Your task to perform on an android device: turn off airplane mode Image 0: 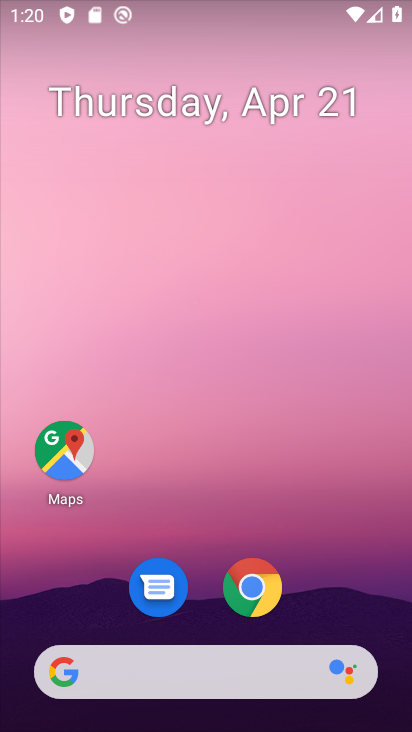
Step 0: drag from (374, 609) to (259, 87)
Your task to perform on an android device: turn off airplane mode Image 1: 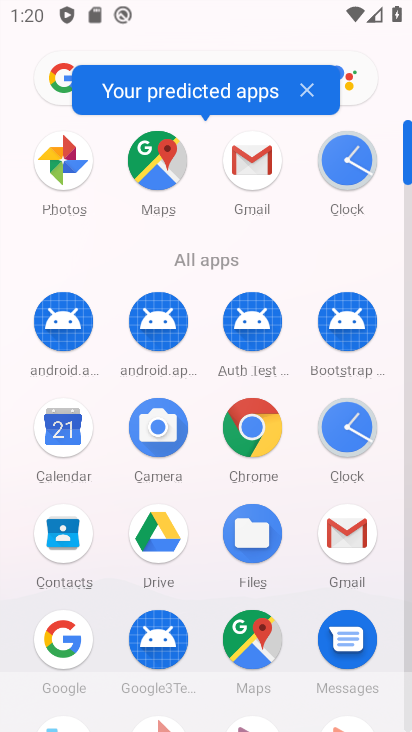
Step 1: click (407, 604)
Your task to perform on an android device: turn off airplane mode Image 2: 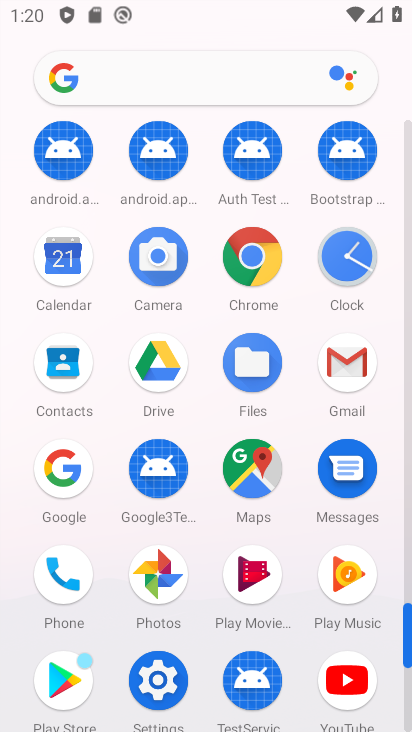
Step 2: click (156, 691)
Your task to perform on an android device: turn off airplane mode Image 3: 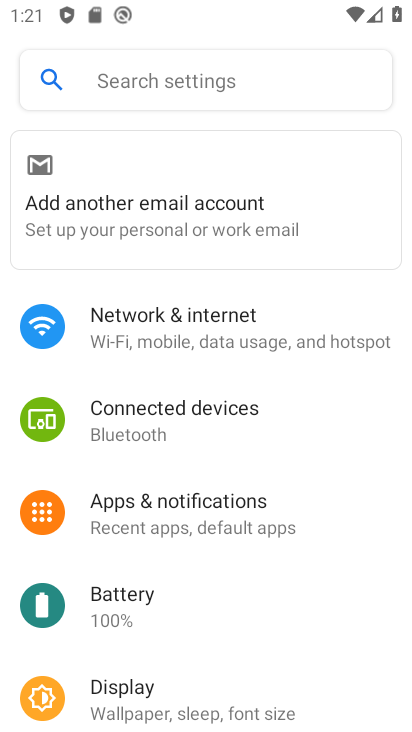
Step 3: click (278, 344)
Your task to perform on an android device: turn off airplane mode Image 4: 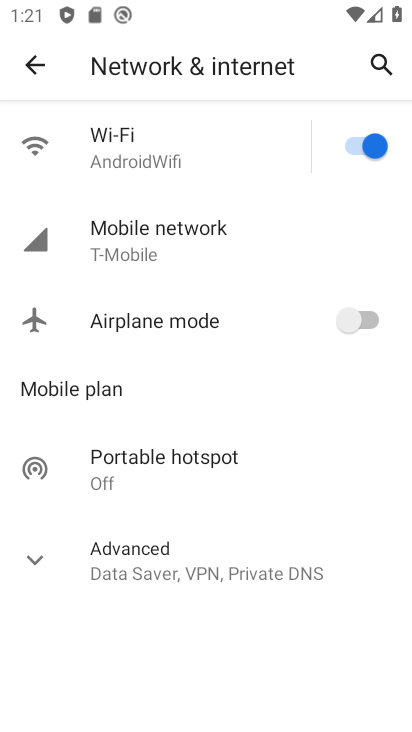
Step 4: task complete